Your task to perform on an android device: Open Youtube and go to the subscriptions tab Image 0: 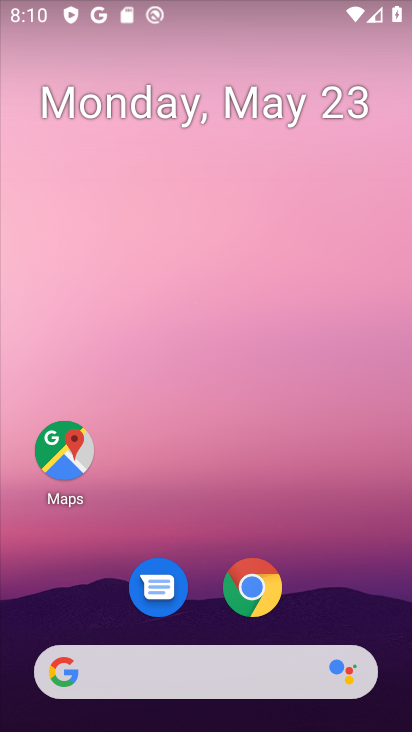
Step 0: drag from (198, 636) to (292, 71)
Your task to perform on an android device: Open Youtube and go to the subscriptions tab Image 1: 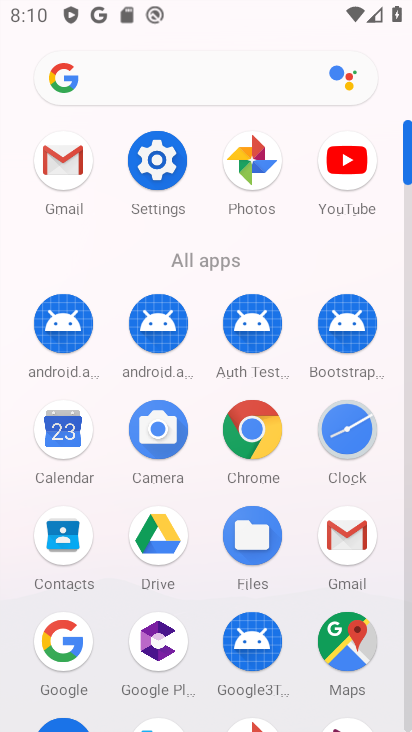
Step 1: click (348, 162)
Your task to perform on an android device: Open Youtube and go to the subscriptions tab Image 2: 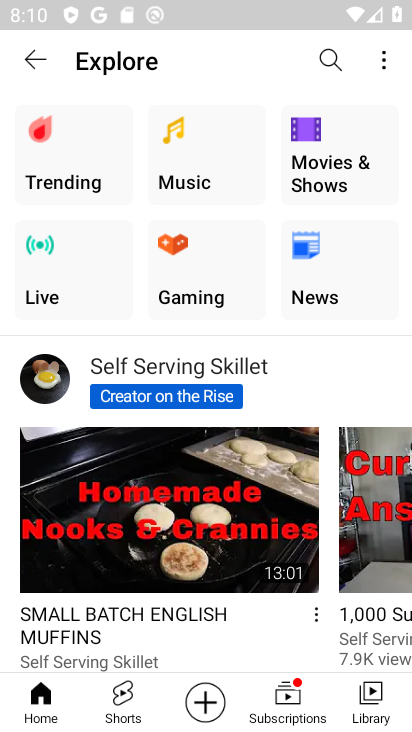
Step 2: click (298, 692)
Your task to perform on an android device: Open Youtube and go to the subscriptions tab Image 3: 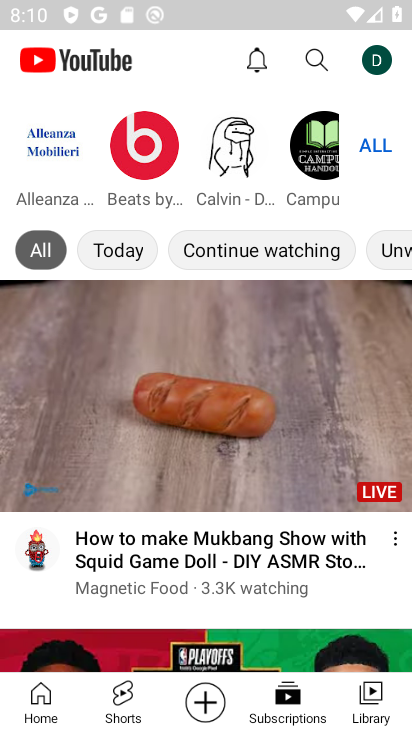
Step 3: task complete